Your task to perform on an android device: Open my contact list Image 0: 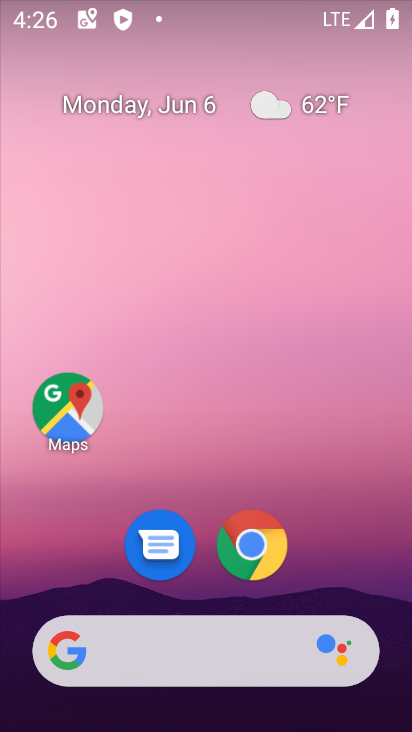
Step 0: drag from (217, 726) to (207, 119)
Your task to perform on an android device: Open my contact list Image 1: 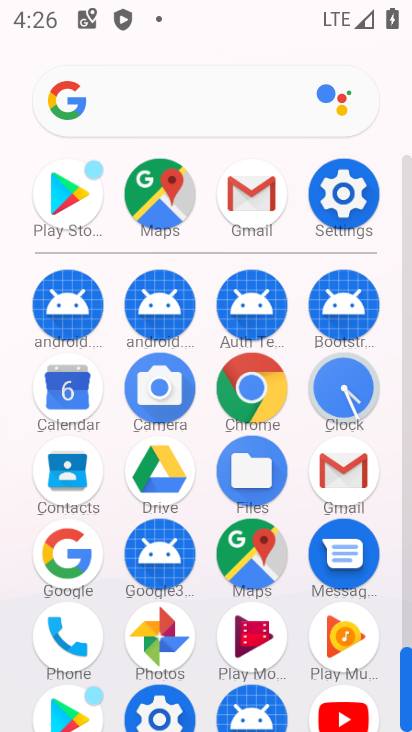
Step 1: click (75, 468)
Your task to perform on an android device: Open my contact list Image 2: 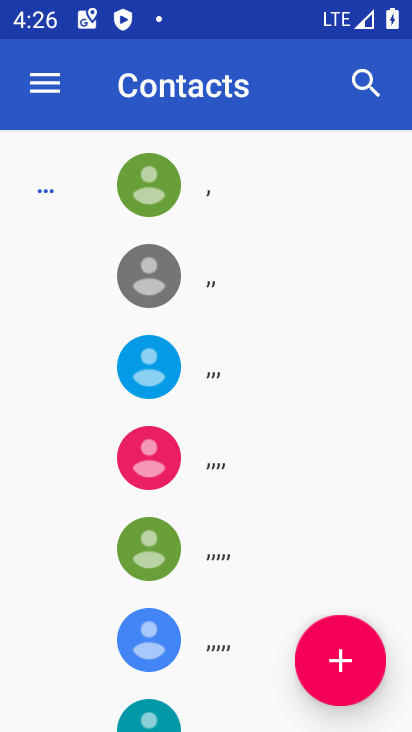
Step 2: task complete